Your task to perform on an android device: Open Amazon Image 0: 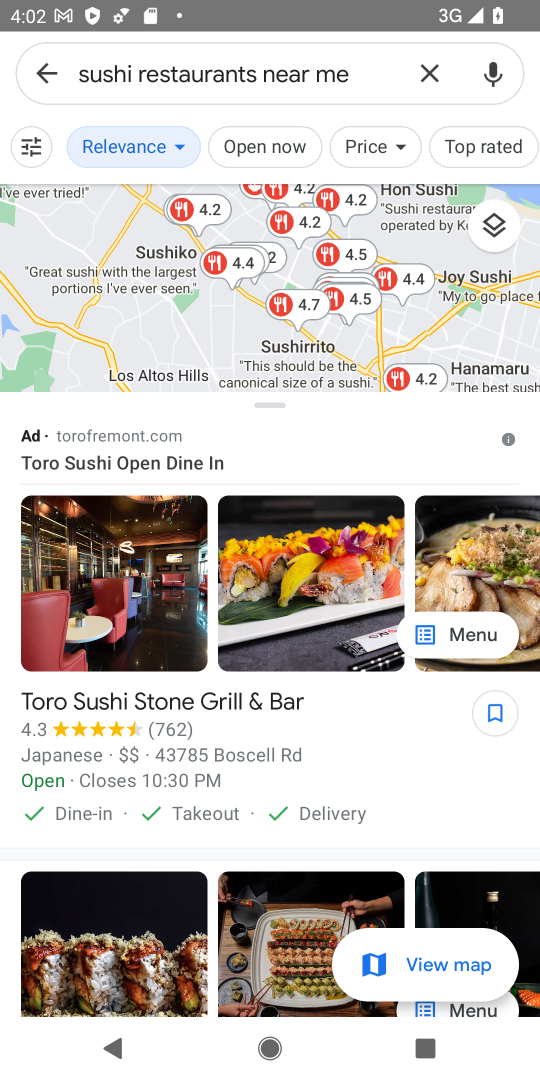
Step 0: press home button
Your task to perform on an android device: Open Amazon Image 1: 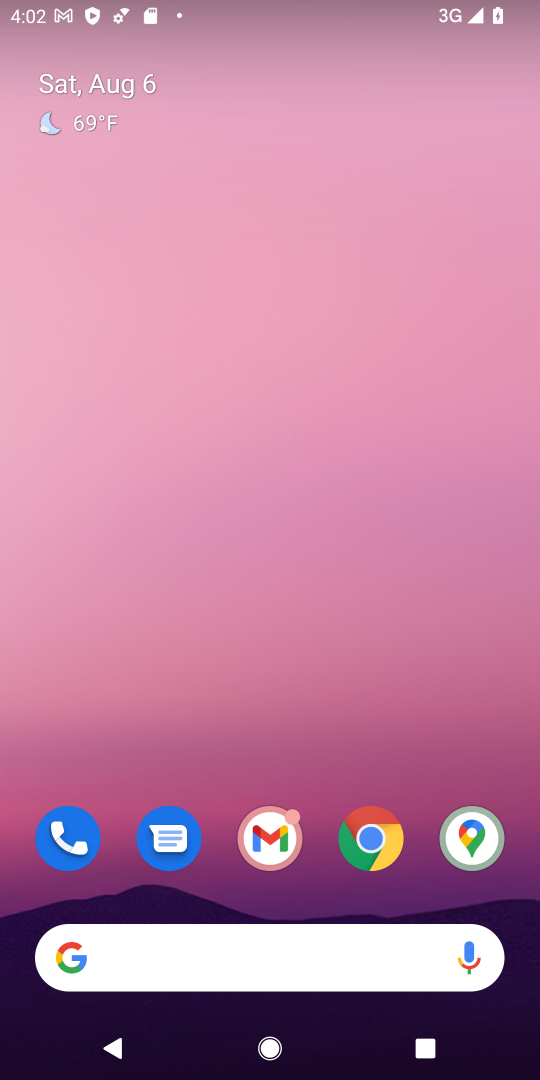
Step 1: click (374, 874)
Your task to perform on an android device: Open Amazon Image 2: 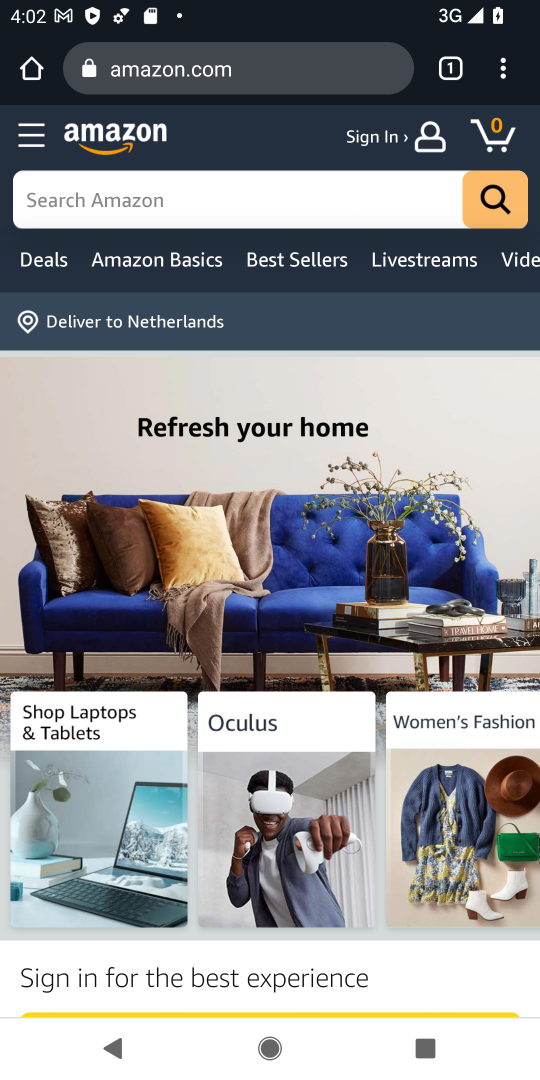
Step 2: click (448, 80)
Your task to perform on an android device: Open Amazon Image 3: 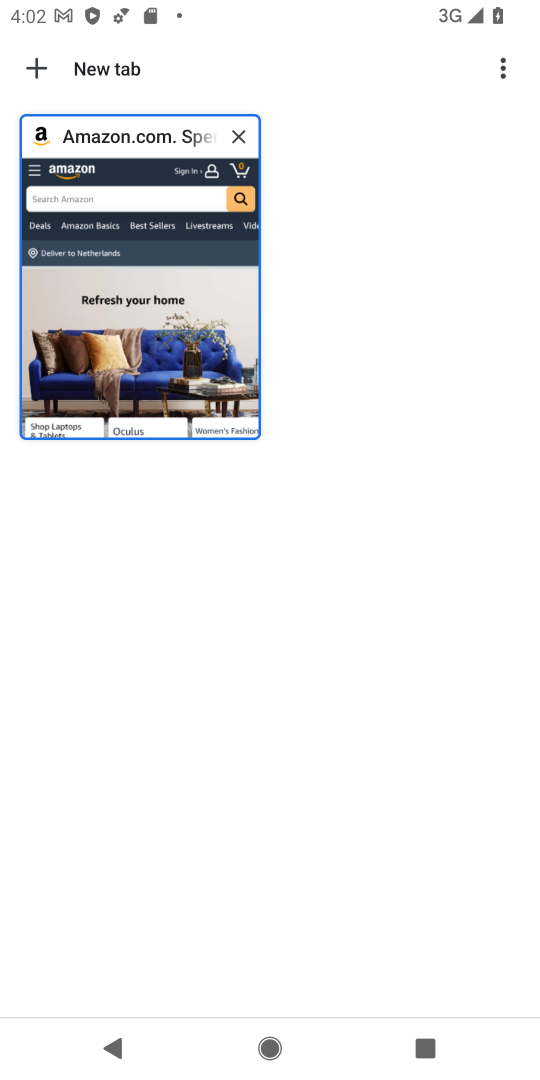
Step 3: click (240, 130)
Your task to perform on an android device: Open Amazon Image 4: 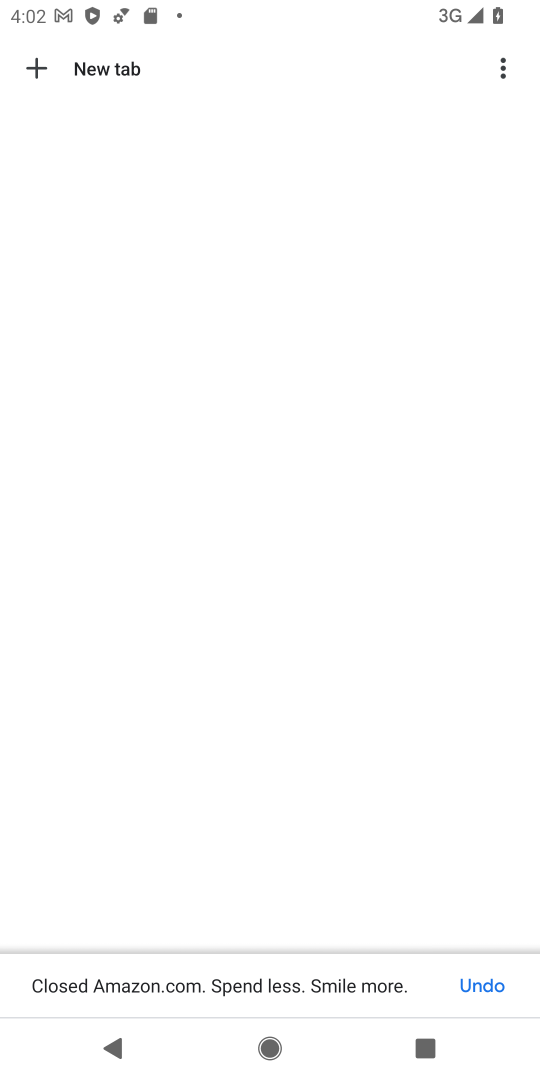
Step 4: click (97, 72)
Your task to perform on an android device: Open Amazon Image 5: 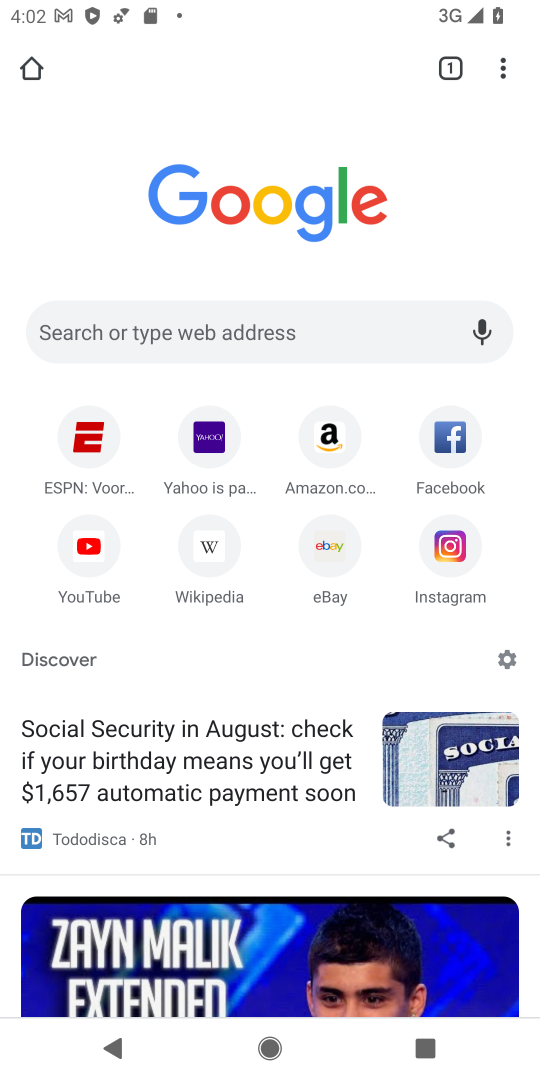
Step 5: click (331, 439)
Your task to perform on an android device: Open Amazon Image 6: 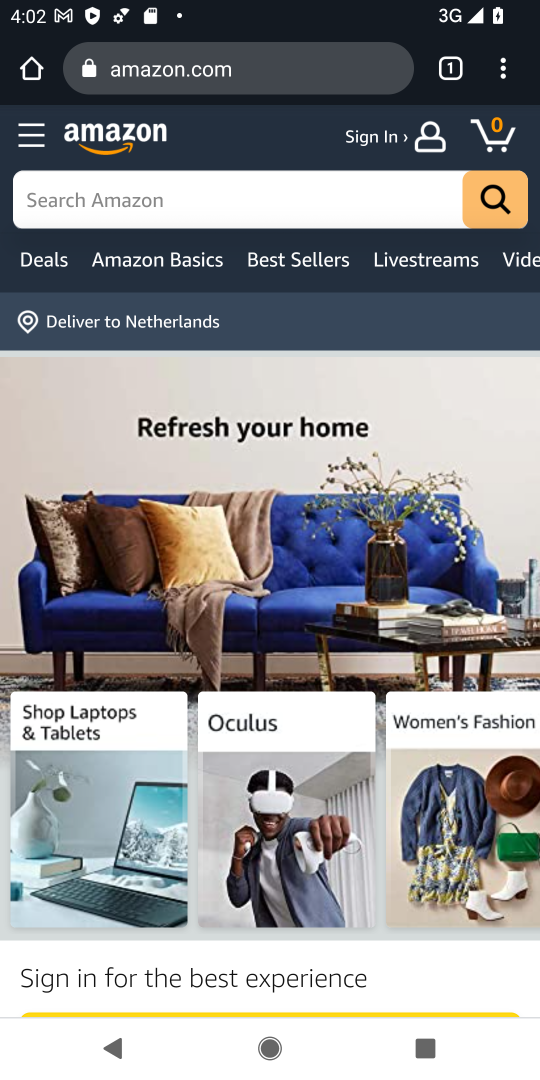
Step 6: task complete